Your task to perform on an android device: toggle wifi Image 0: 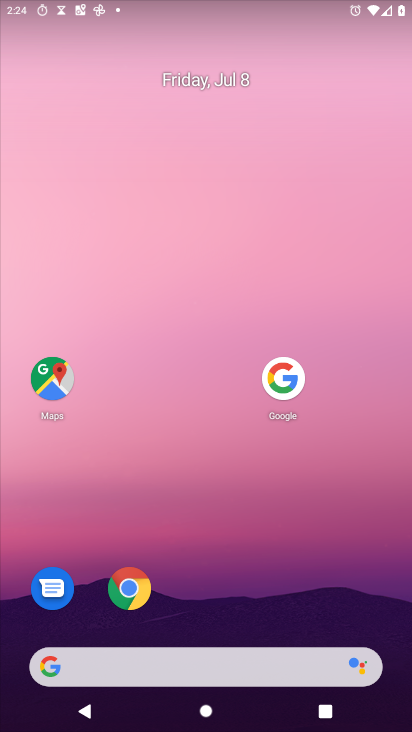
Step 0: drag from (223, 651) to (236, 63)
Your task to perform on an android device: toggle wifi Image 1: 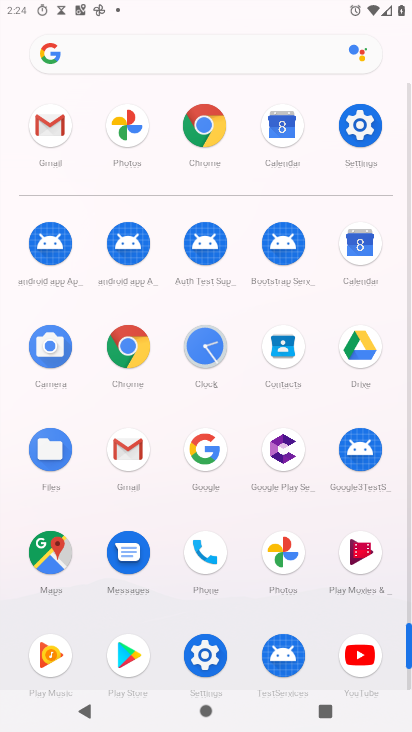
Step 1: click (363, 116)
Your task to perform on an android device: toggle wifi Image 2: 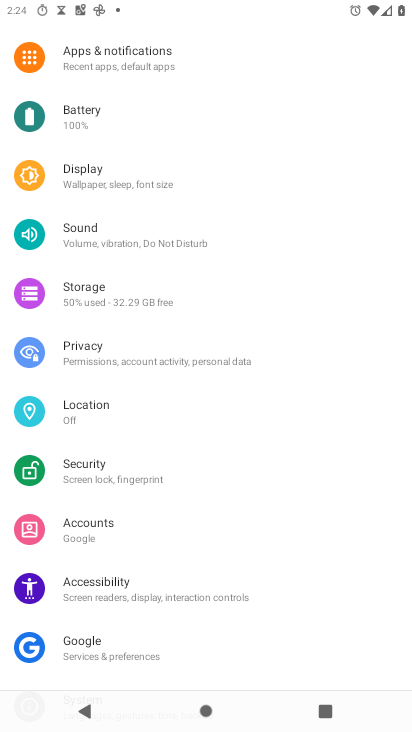
Step 2: drag from (296, 79) to (267, 532)
Your task to perform on an android device: toggle wifi Image 3: 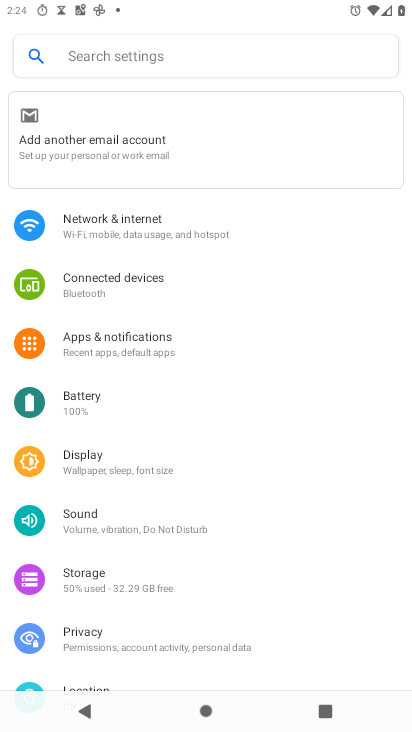
Step 3: click (126, 219)
Your task to perform on an android device: toggle wifi Image 4: 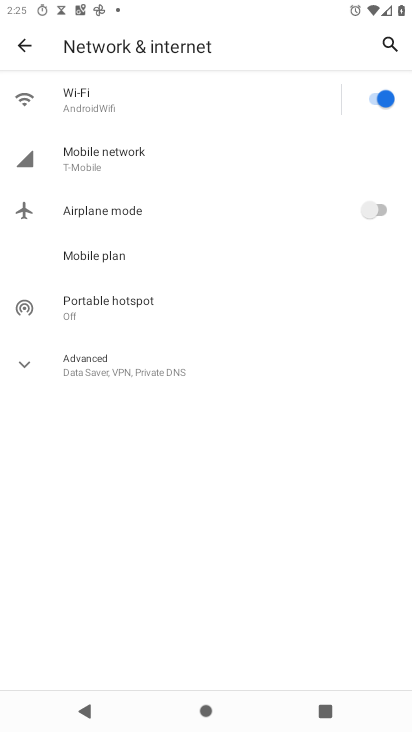
Step 4: click (376, 95)
Your task to perform on an android device: toggle wifi Image 5: 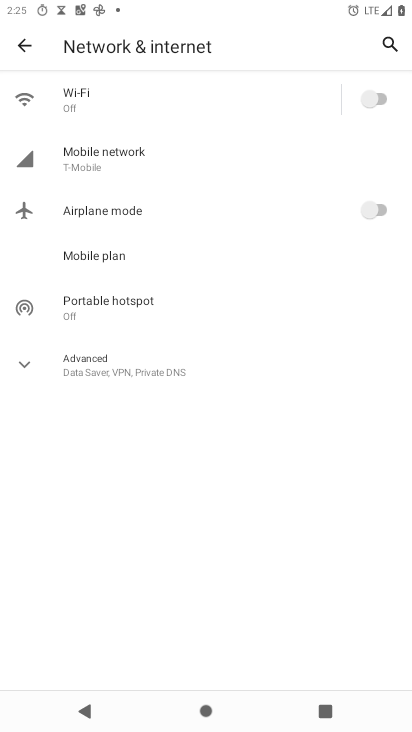
Step 5: task complete